Your task to perform on an android device: turn on translation in the chrome app Image 0: 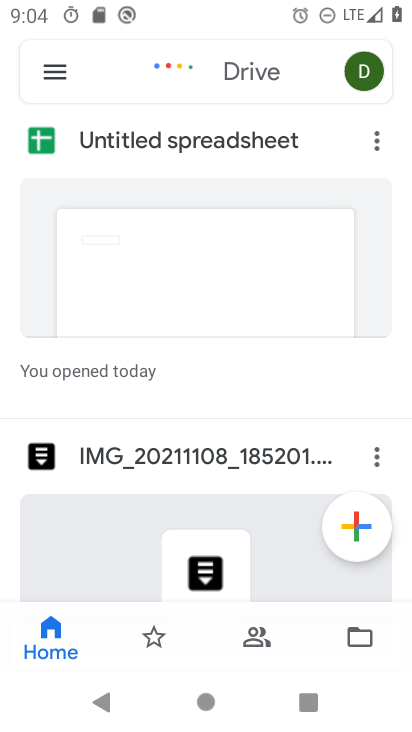
Step 0: press home button
Your task to perform on an android device: turn on translation in the chrome app Image 1: 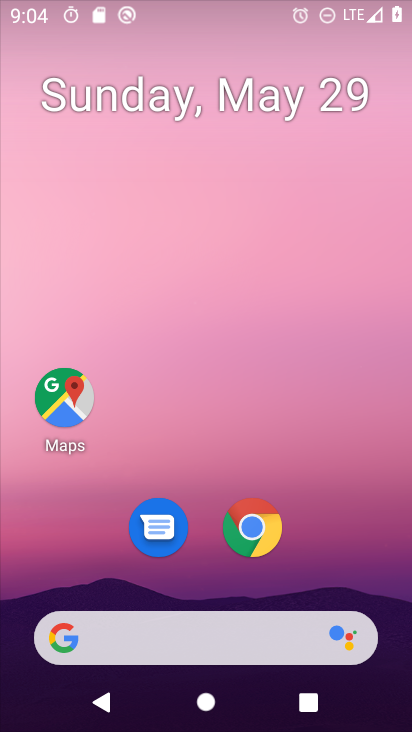
Step 1: drag from (392, 653) to (249, 119)
Your task to perform on an android device: turn on translation in the chrome app Image 2: 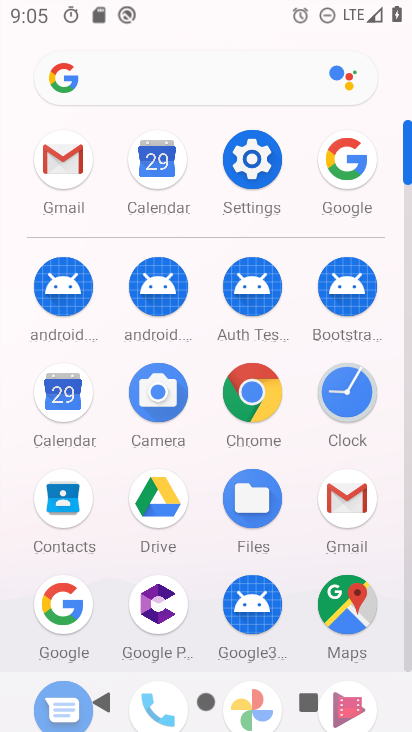
Step 2: click (242, 396)
Your task to perform on an android device: turn on translation in the chrome app Image 3: 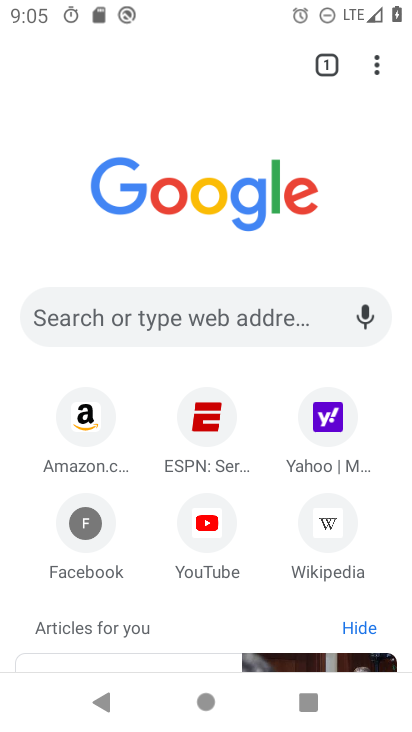
Step 3: click (373, 55)
Your task to perform on an android device: turn on translation in the chrome app Image 4: 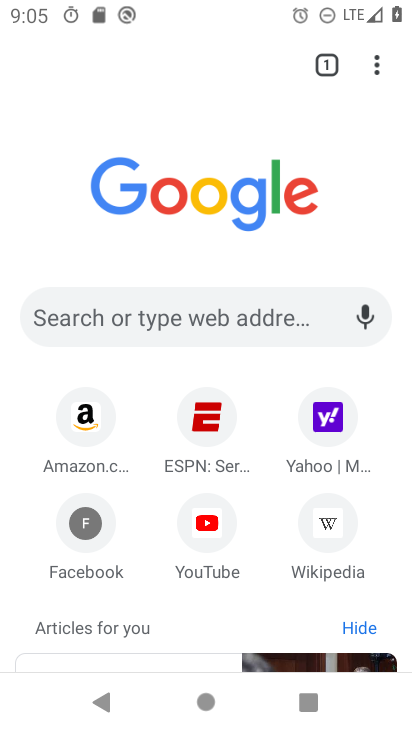
Step 4: click (376, 56)
Your task to perform on an android device: turn on translation in the chrome app Image 5: 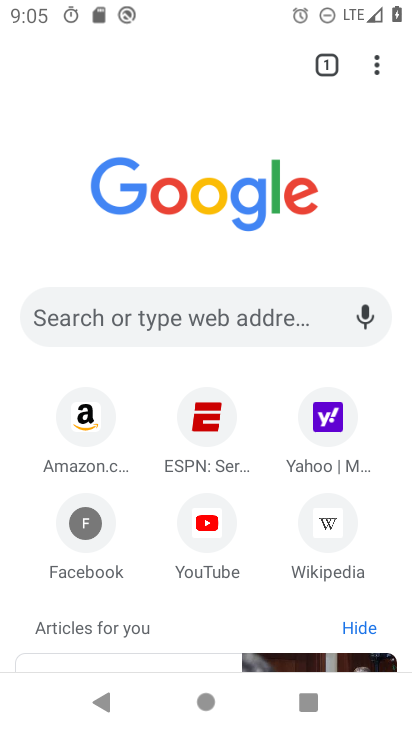
Step 5: click (381, 55)
Your task to perform on an android device: turn on translation in the chrome app Image 6: 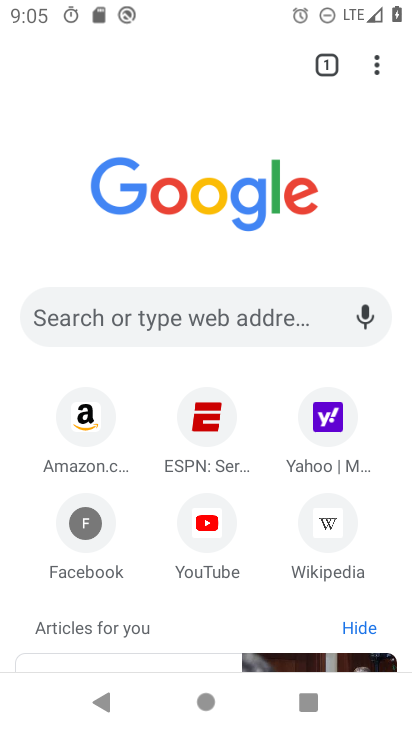
Step 6: click (381, 55)
Your task to perform on an android device: turn on translation in the chrome app Image 7: 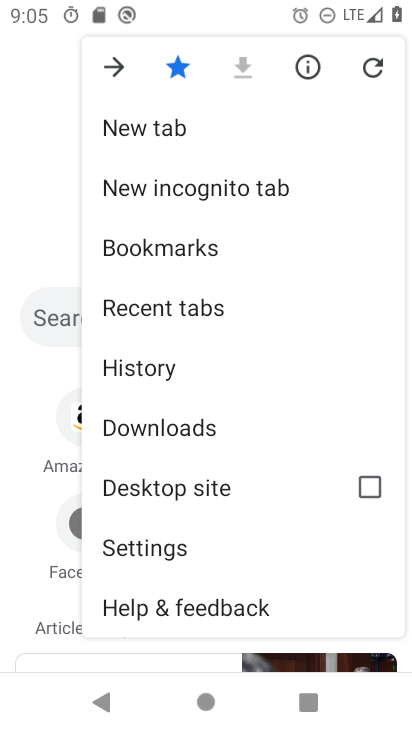
Step 7: click (178, 548)
Your task to perform on an android device: turn on translation in the chrome app Image 8: 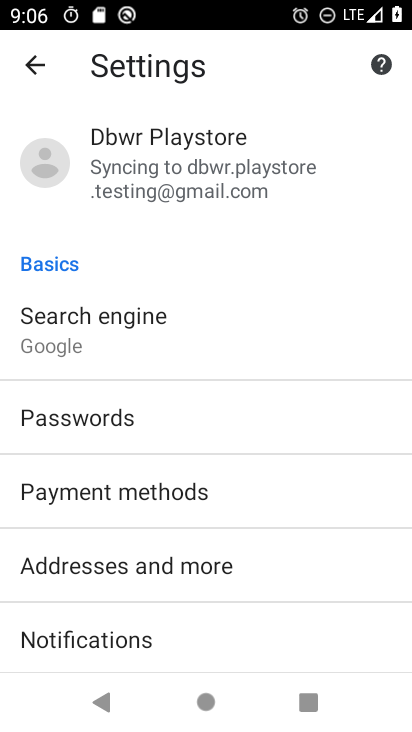
Step 8: drag from (127, 645) to (168, 91)
Your task to perform on an android device: turn on translation in the chrome app Image 9: 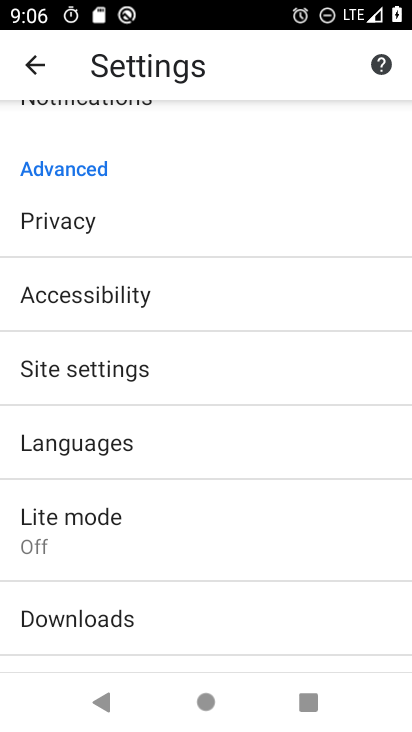
Step 9: click (149, 458)
Your task to perform on an android device: turn on translation in the chrome app Image 10: 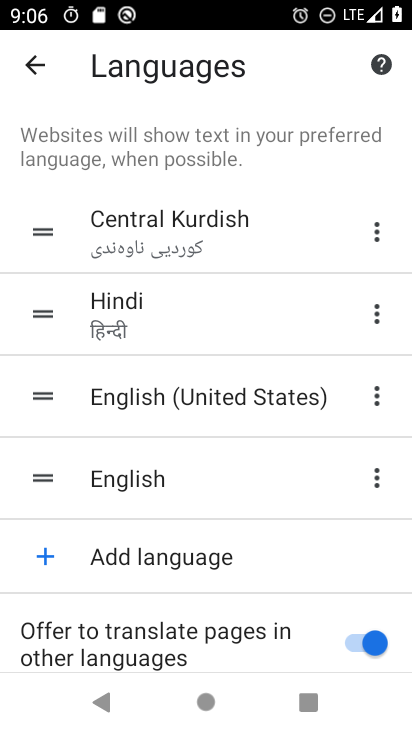
Step 10: task complete